Your task to perform on an android device: see sites visited before in the chrome app Image 0: 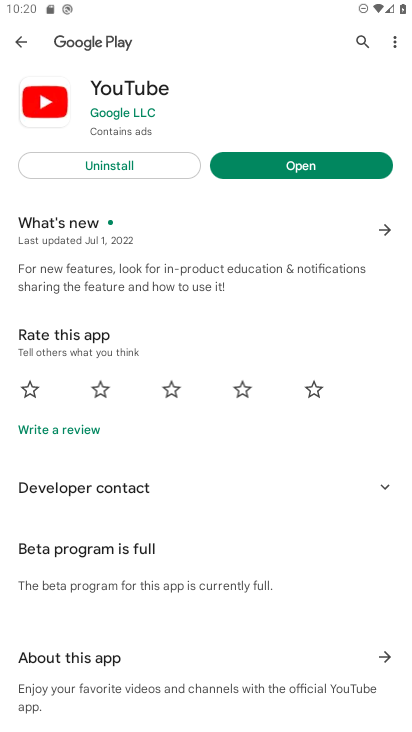
Step 0: press home button
Your task to perform on an android device: see sites visited before in the chrome app Image 1: 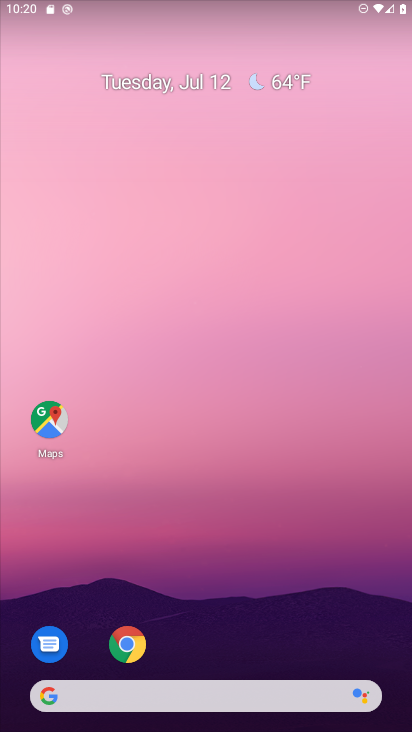
Step 1: click (132, 643)
Your task to perform on an android device: see sites visited before in the chrome app Image 2: 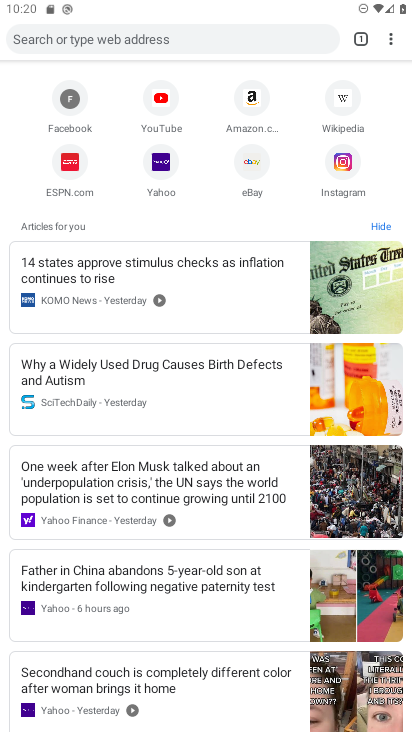
Step 2: click (390, 43)
Your task to perform on an android device: see sites visited before in the chrome app Image 3: 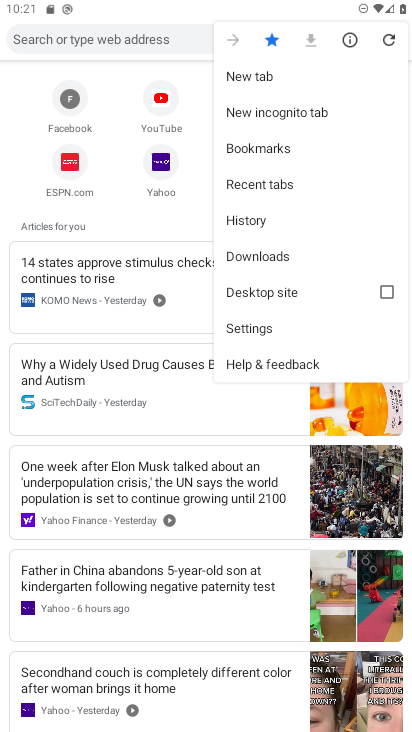
Step 3: click (259, 182)
Your task to perform on an android device: see sites visited before in the chrome app Image 4: 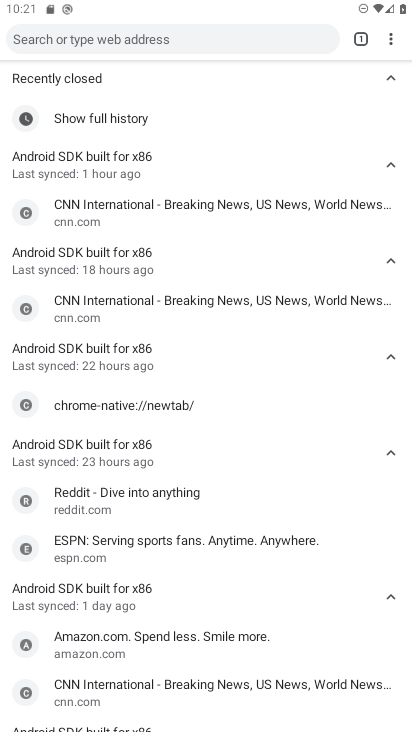
Step 4: task complete